Your task to perform on an android device: Open the stopwatch Image 0: 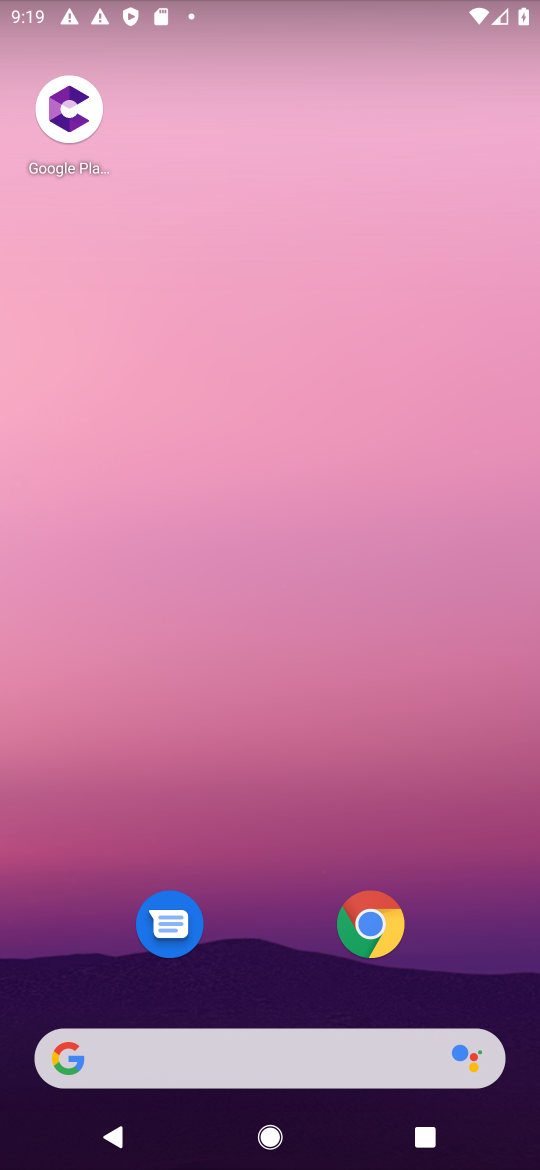
Step 0: drag from (332, 503) to (350, 450)
Your task to perform on an android device: Open the stopwatch Image 1: 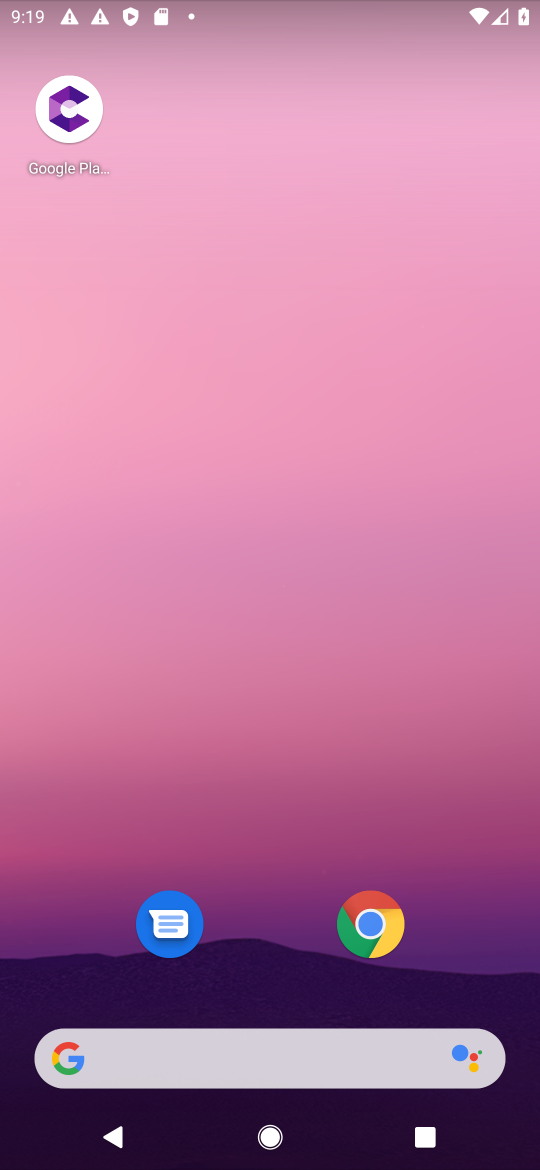
Step 1: drag from (225, 921) to (282, 392)
Your task to perform on an android device: Open the stopwatch Image 2: 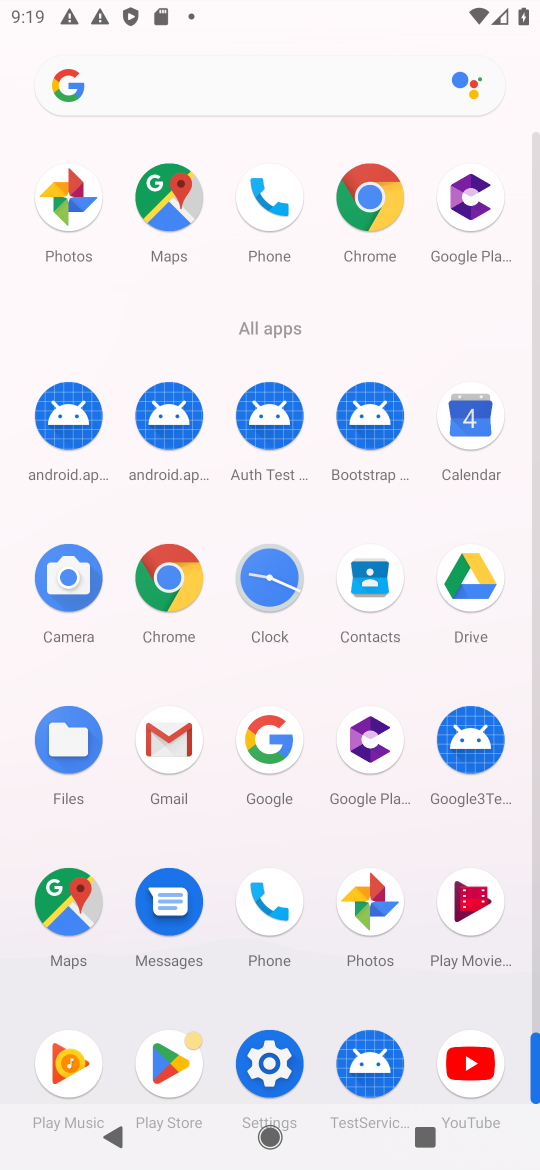
Step 2: click (256, 565)
Your task to perform on an android device: Open the stopwatch Image 3: 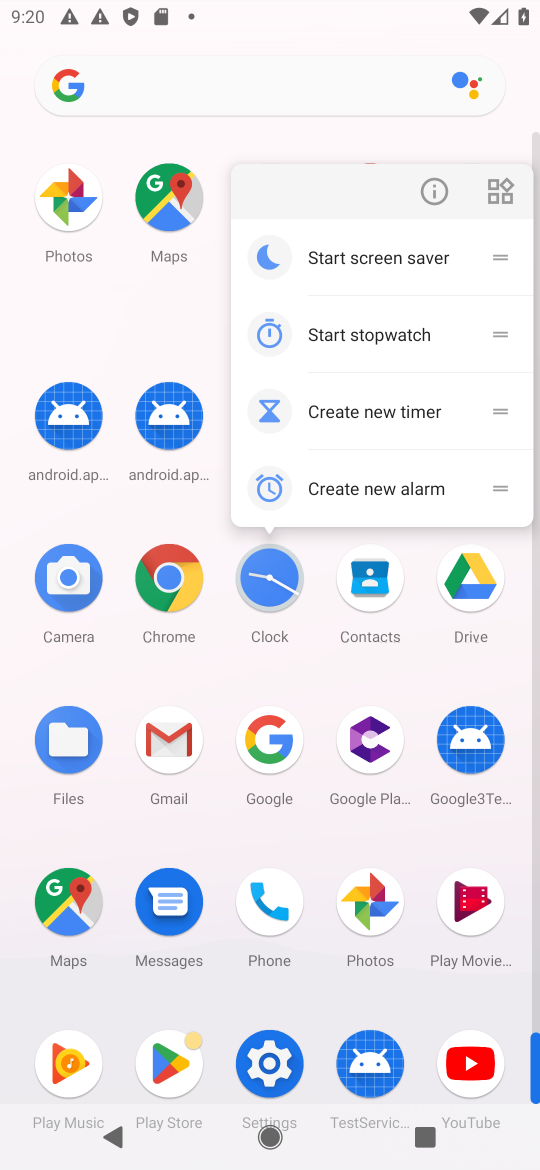
Step 3: click (442, 186)
Your task to perform on an android device: Open the stopwatch Image 4: 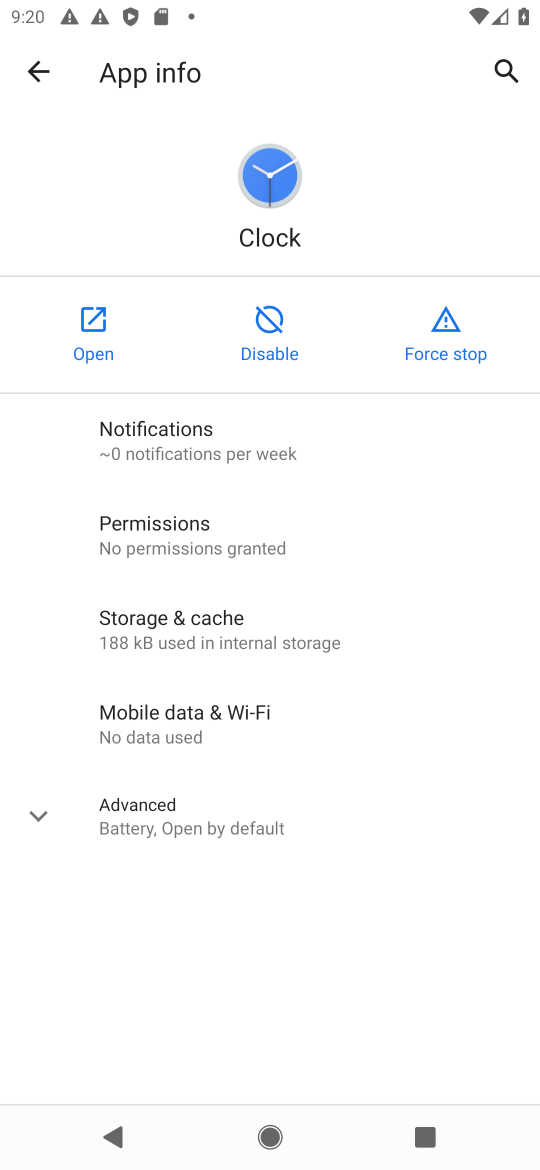
Step 4: click (94, 312)
Your task to perform on an android device: Open the stopwatch Image 5: 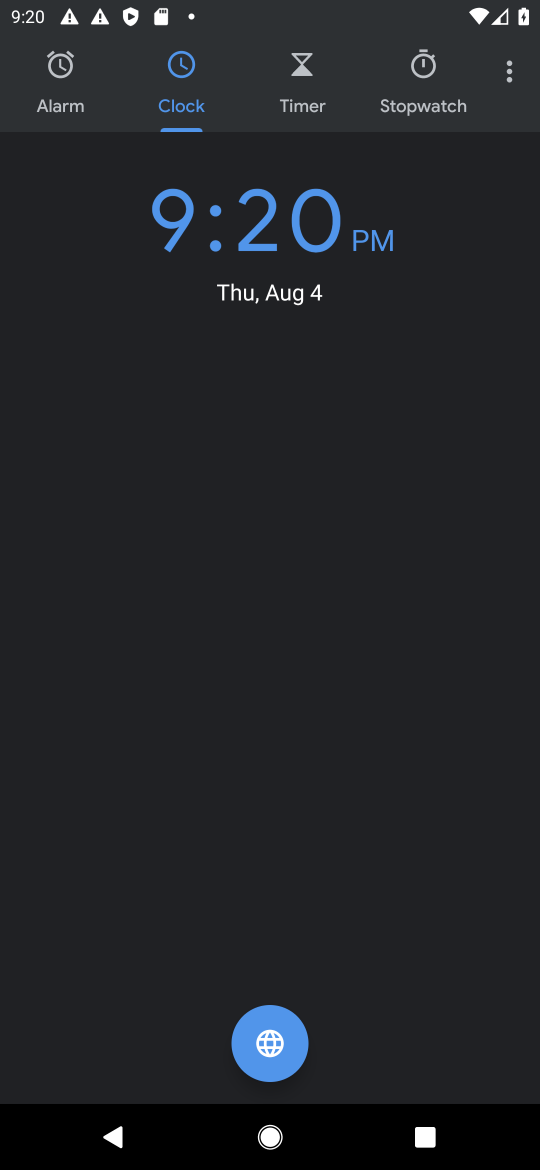
Step 5: click (389, 74)
Your task to perform on an android device: Open the stopwatch Image 6: 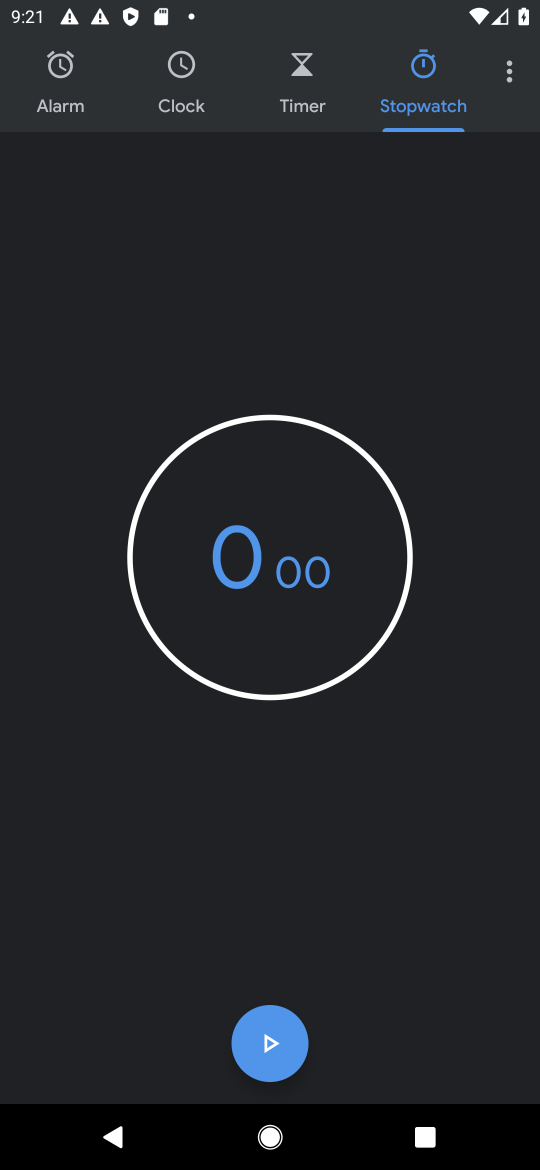
Step 6: click (276, 1044)
Your task to perform on an android device: Open the stopwatch Image 7: 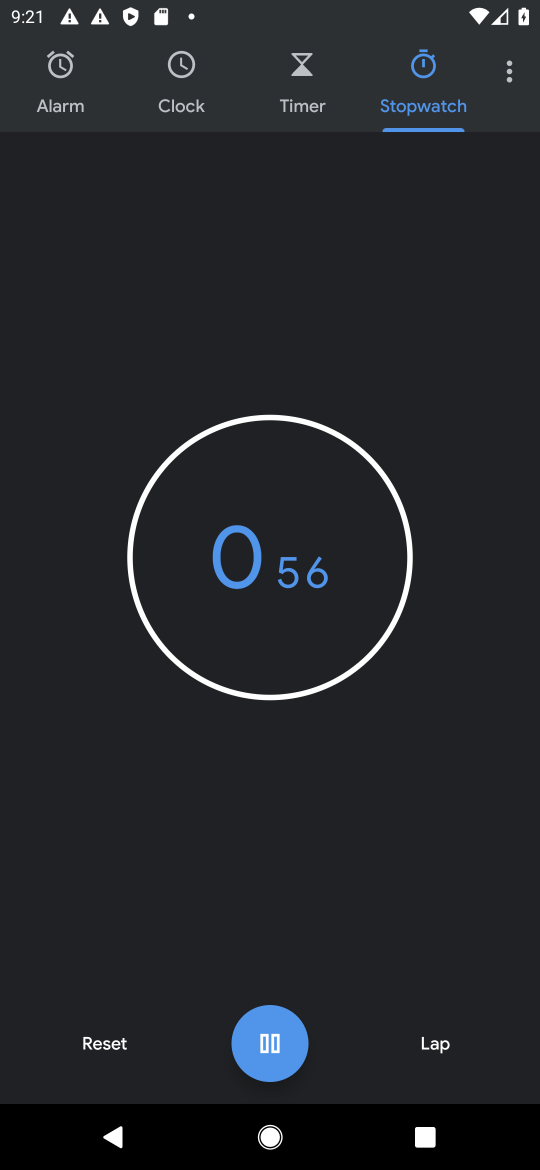
Step 7: task complete